Your task to perform on an android device: toggle show notifications on the lock screen Image 0: 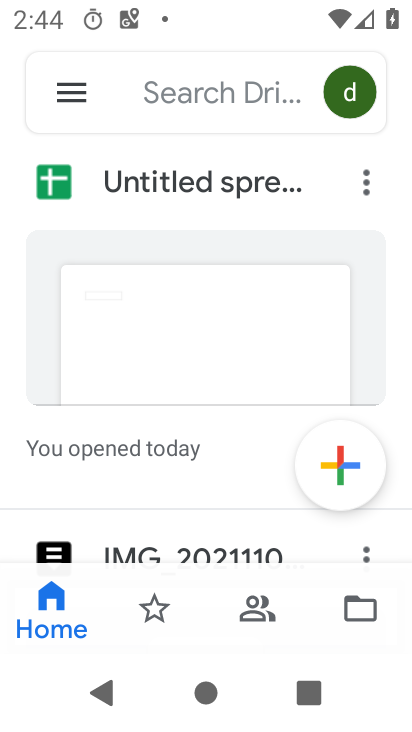
Step 0: press home button
Your task to perform on an android device: toggle show notifications on the lock screen Image 1: 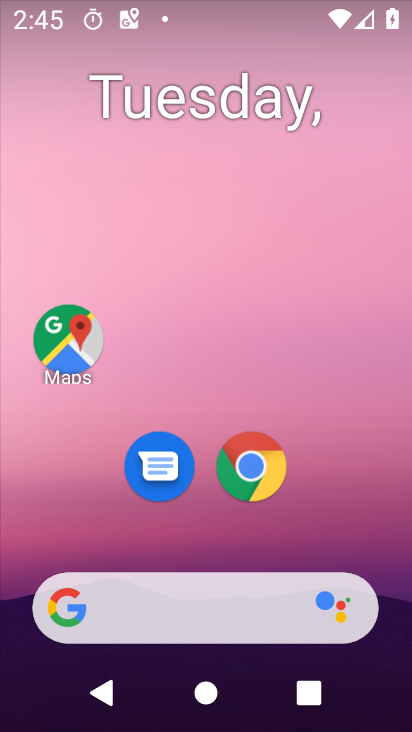
Step 1: drag from (372, 541) to (363, 175)
Your task to perform on an android device: toggle show notifications on the lock screen Image 2: 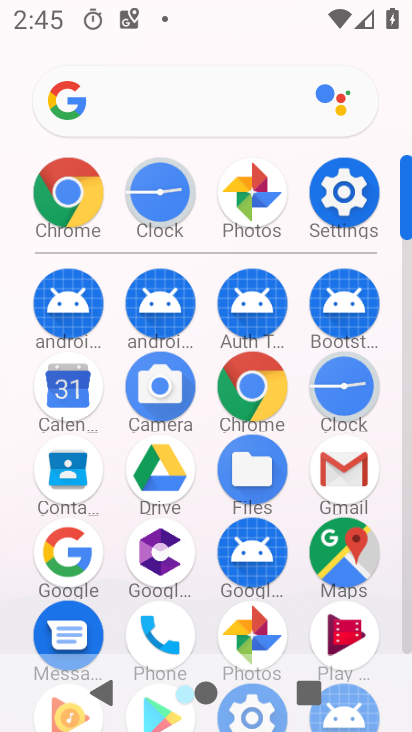
Step 2: click (365, 208)
Your task to perform on an android device: toggle show notifications on the lock screen Image 3: 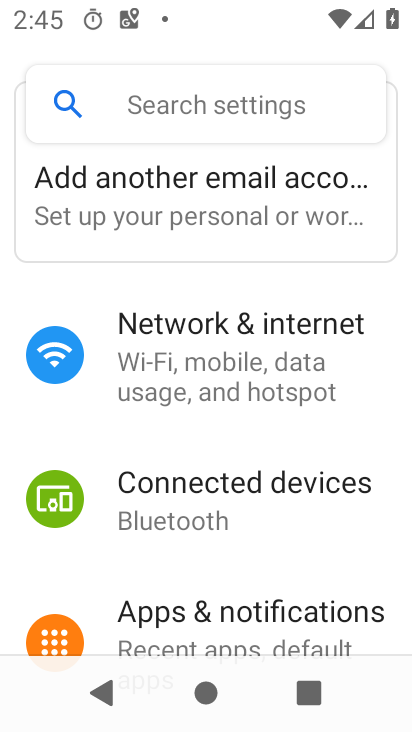
Step 3: drag from (367, 418) to (376, 270)
Your task to perform on an android device: toggle show notifications on the lock screen Image 4: 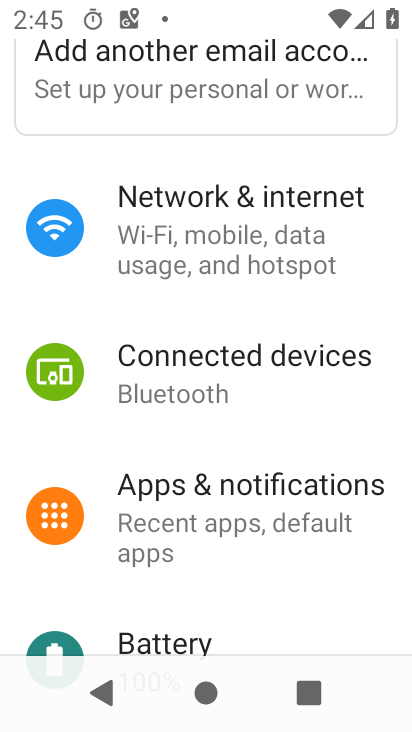
Step 4: drag from (326, 583) to (345, 329)
Your task to perform on an android device: toggle show notifications on the lock screen Image 5: 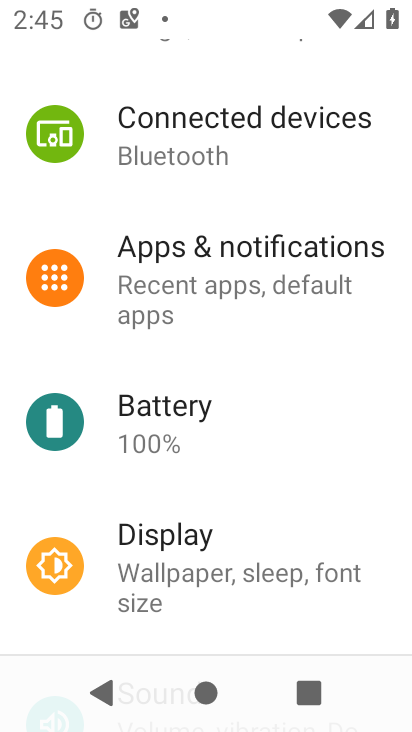
Step 5: click (287, 270)
Your task to perform on an android device: toggle show notifications on the lock screen Image 6: 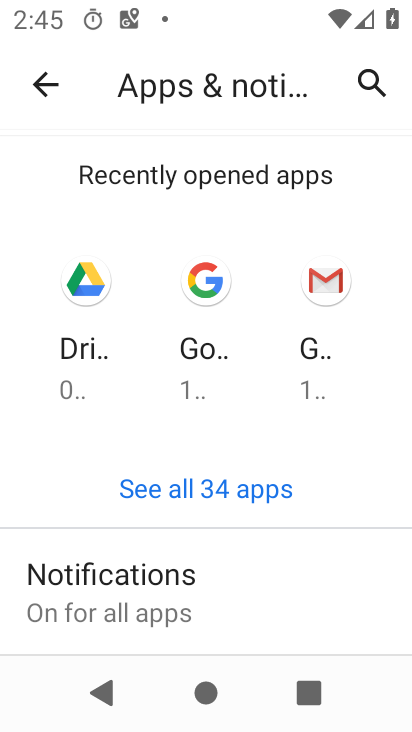
Step 6: click (170, 596)
Your task to perform on an android device: toggle show notifications on the lock screen Image 7: 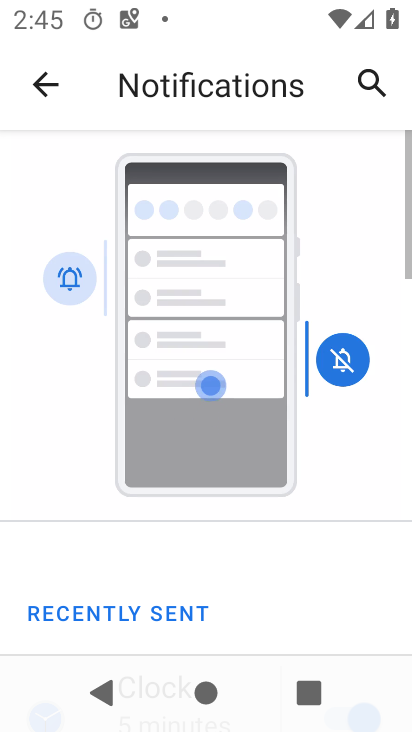
Step 7: drag from (319, 585) to (321, 395)
Your task to perform on an android device: toggle show notifications on the lock screen Image 8: 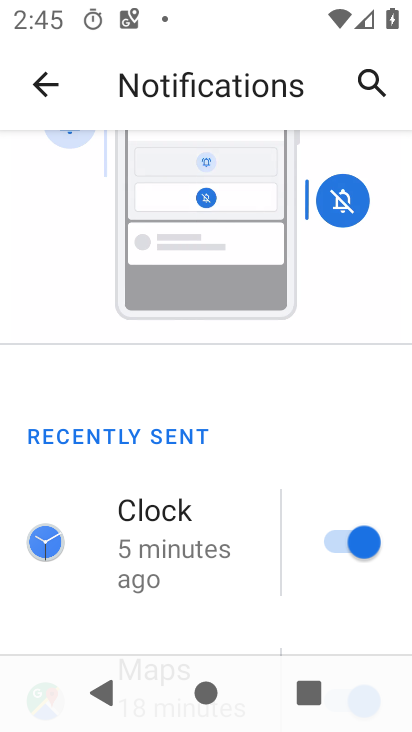
Step 8: drag from (296, 546) to (306, 413)
Your task to perform on an android device: toggle show notifications on the lock screen Image 9: 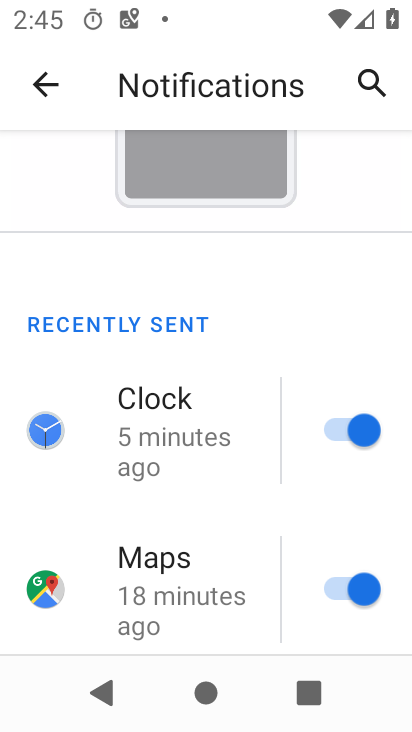
Step 9: drag from (242, 615) to (247, 440)
Your task to perform on an android device: toggle show notifications on the lock screen Image 10: 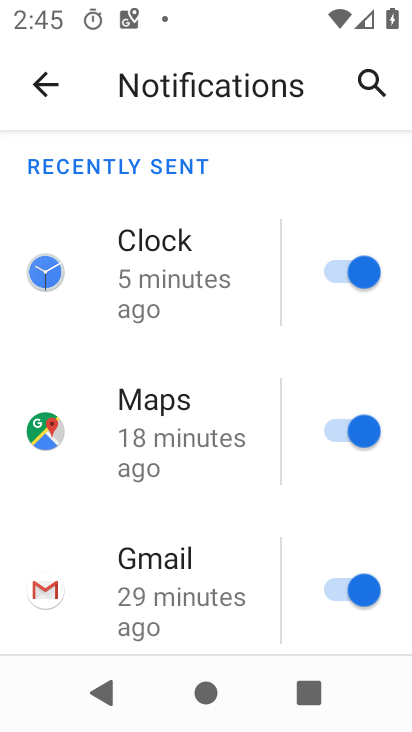
Step 10: drag from (250, 618) to (245, 475)
Your task to perform on an android device: toggle show notifications on the lock screen Image 11: 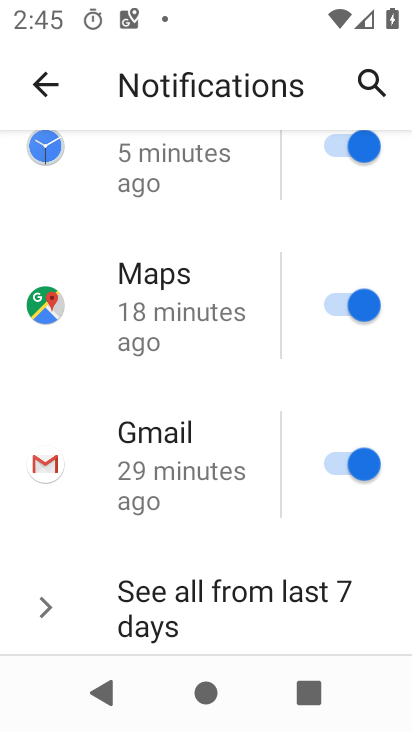
Step 11: drag from (257, 611) to (259, 475)
Your task to perform on an android device: toggle show notifications on the lock screen Image 12: 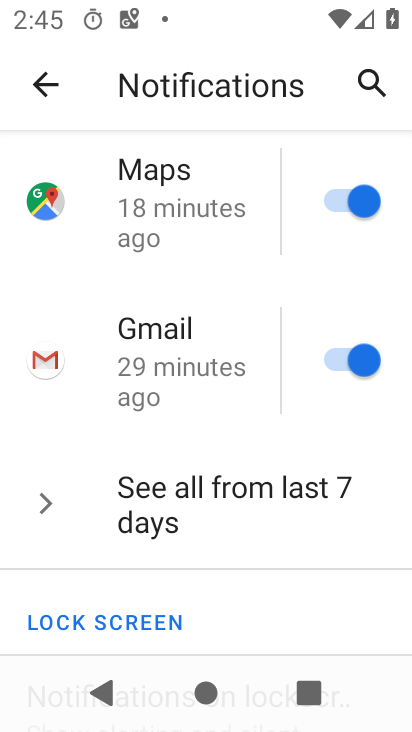
Step 12: drag from (258, 614) to (268, 459)
Your task to perform on an android device: toggle show notifications on the lock screen Image 13: 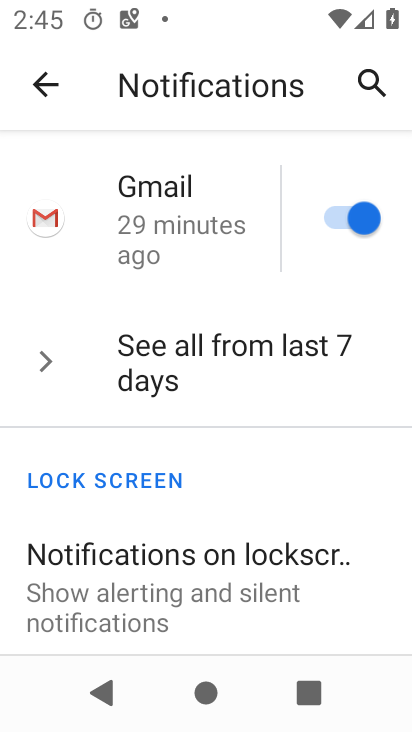
Step 13: click (207, 584)
Your task to perform on an android device: toggle show notifications on the lock screen Image 14: 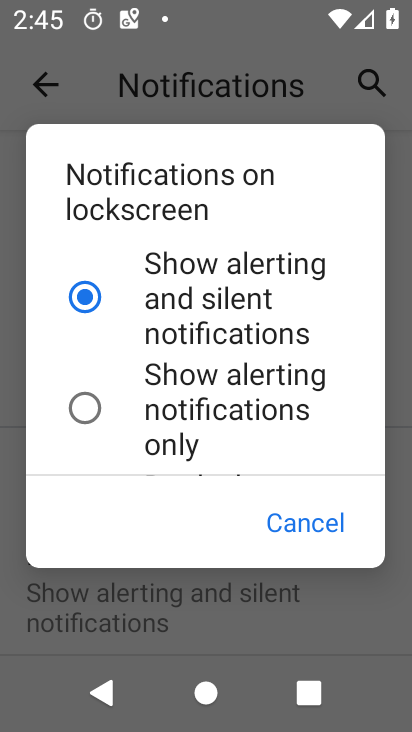
Step 14: click (98, 397)
Your task to perform on an android device: toggle show notifications on the lock screen Image 15: 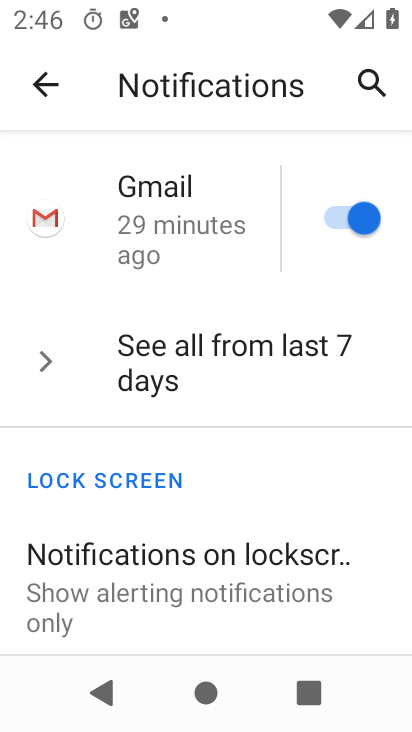
Step 15: task complete